Your task to perform on an android device: Open network settings Image 0: 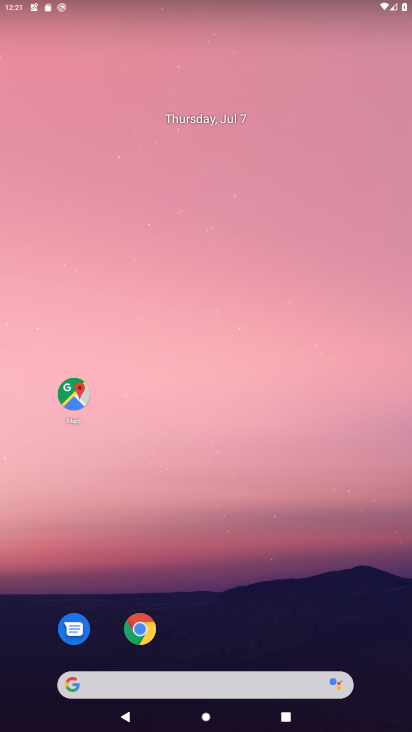
Step 0: drag from (244, 629) to (208, 64)
Your task to perform on an android device: Open network settings Image 1: 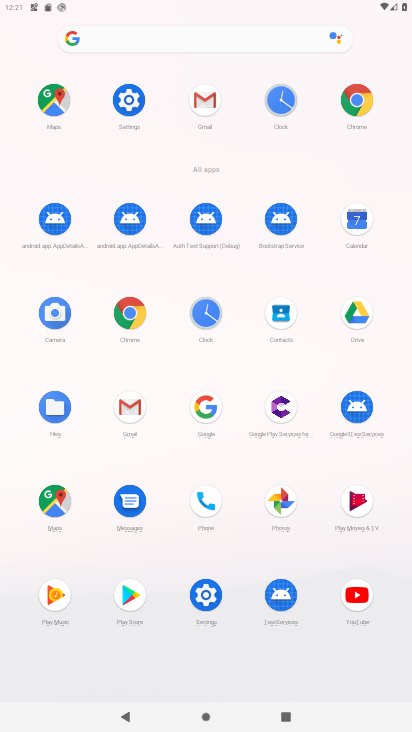
Step 1: click (131, 102)
Your task to perform on an android device: Open network settings Image 2: 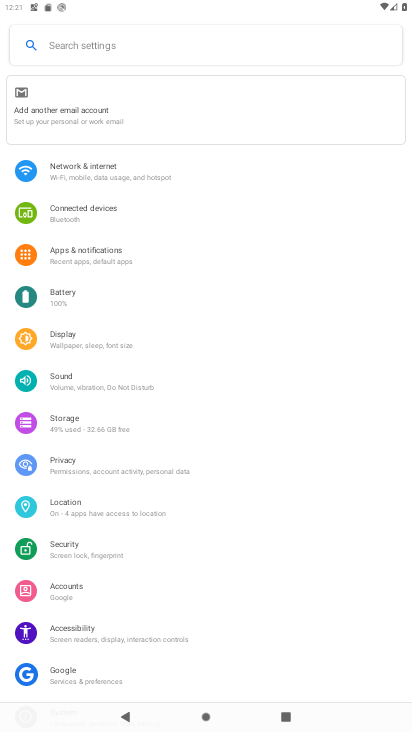
Step 2: click (136, 163)
Your task to perform on an android device: Open network settings Image 3: 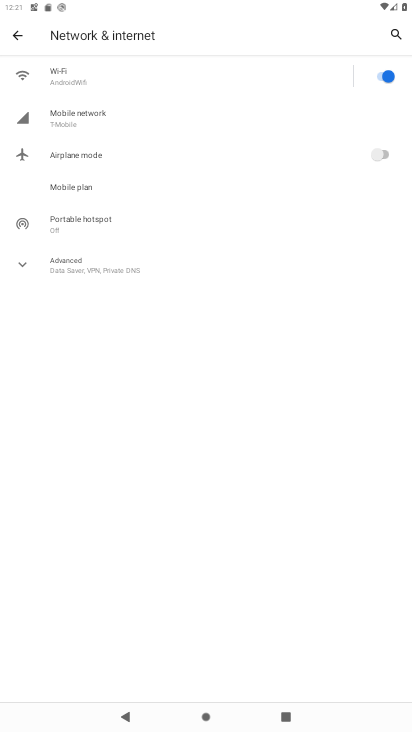
Step 3: task complete